Your task to perform on an android device: change the clock style Image 0: 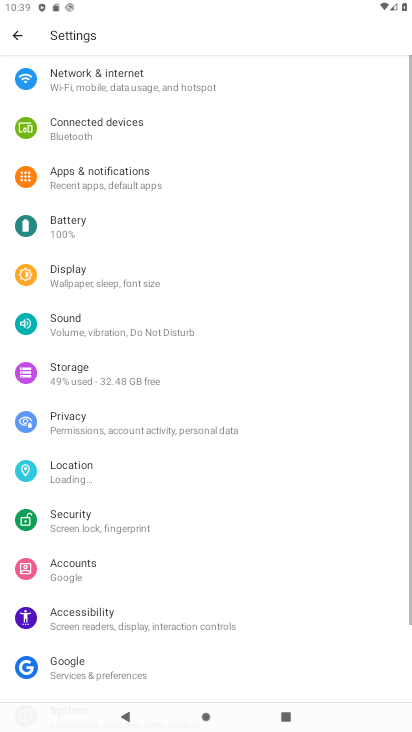
Step 0: press home button
Your task to perform on an android device: change the clock style Image 1: 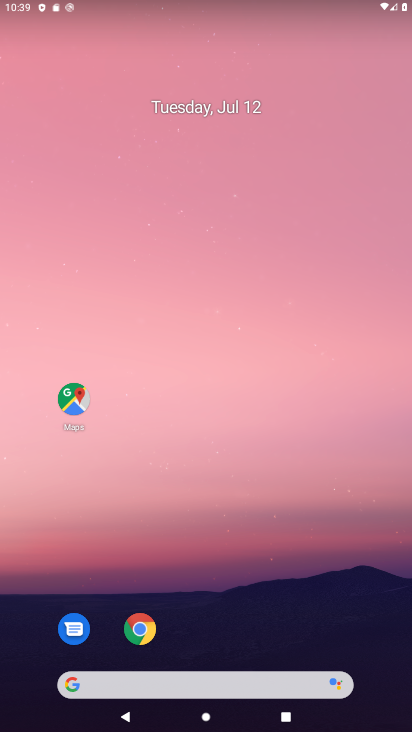
Step 1: drag from (258, 502) to (249, 150)
Your task to perform on an android device: change the clock style Image 2: 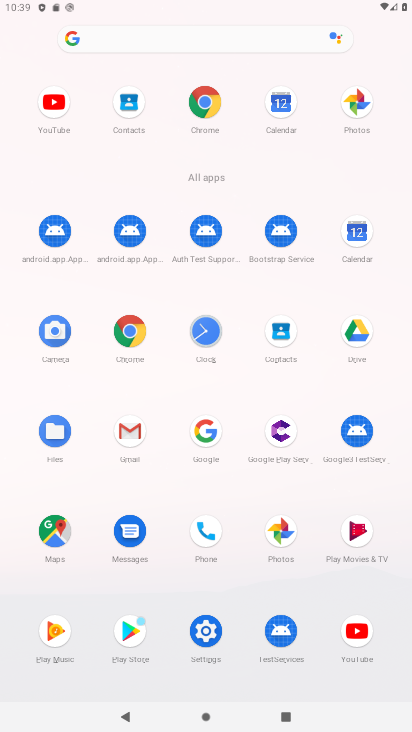
Step 2: click (206, 338)
Your task to perform on an android device: change the clock style Image 3: 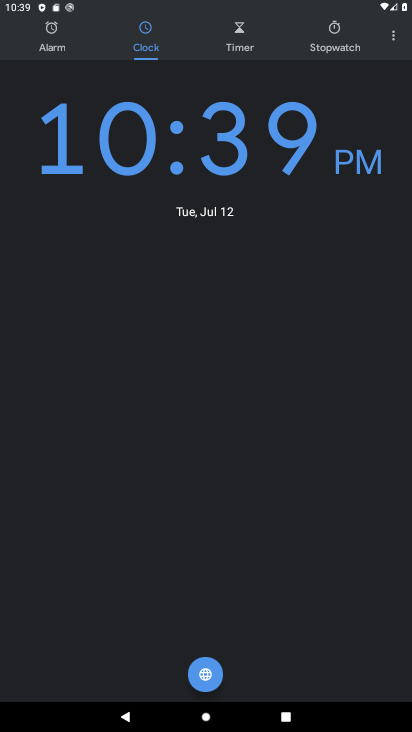
Step 3: click (390, 33)
Your task to perform on an android device: change the clock style Image 4: 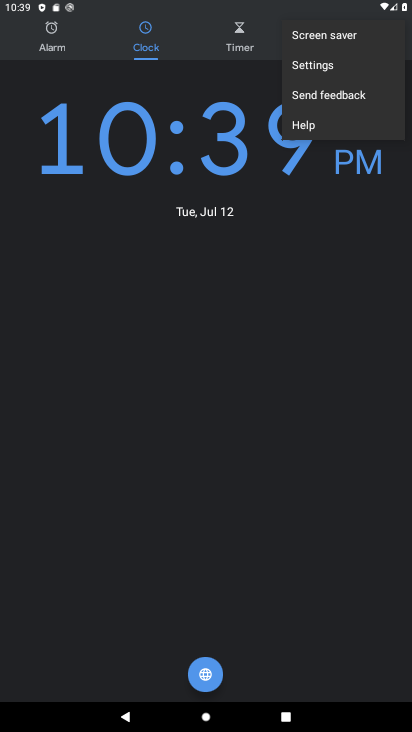
Step 4: click (336, 66)
Your task to perform on an android device: change the clock style Image 5: 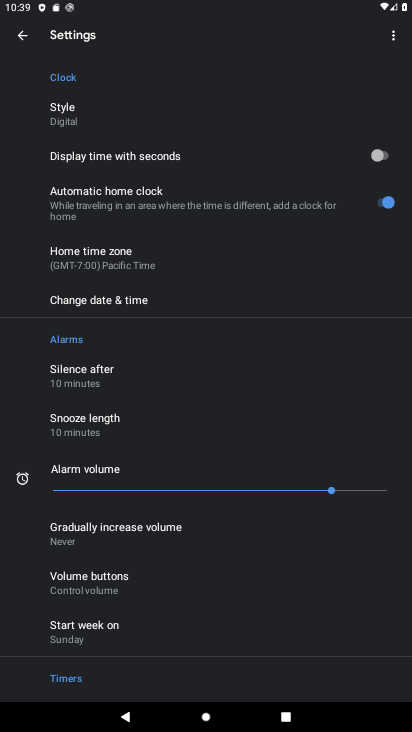
Step 5: click (57, 104)
Your task to perform on an android device: change the clock style Image 6: 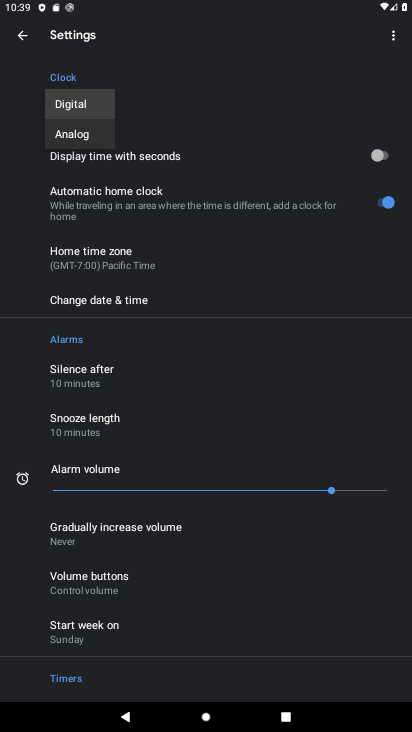
Step 6: click (76, 135)
Your task to perform on an android device: change the clock style Image 7: 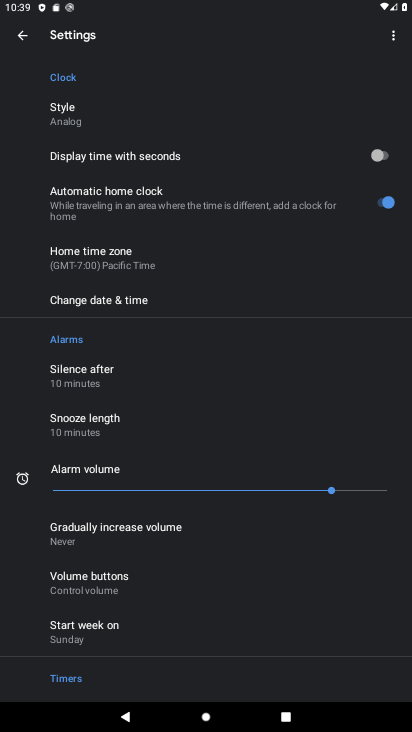
Step 7: task complete